Your task to perform on an android device: Toggle the flashlight Image 0: 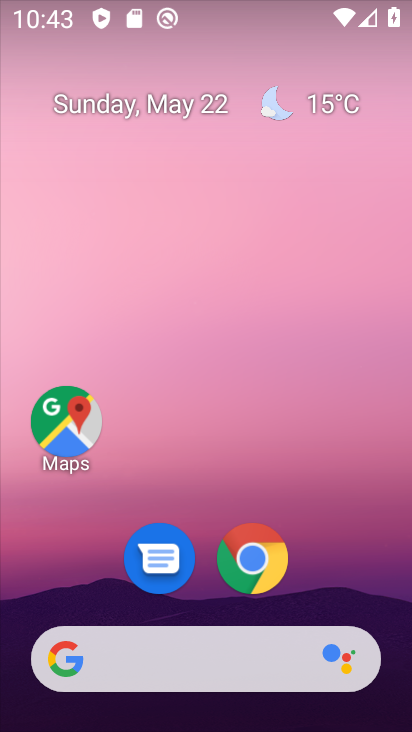
Step 0: drag from (215, 2) to (214, 725)
Your task to perform on an android device: Toggle the flashlight Image 1: 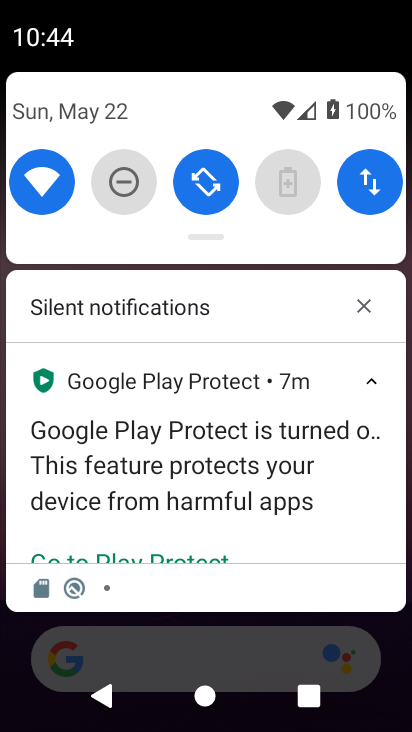
Step 1: task complete